Your task to perform on an android device: Empty the shopping cart on target. Add corsair k70 to the cart on target Image 0: 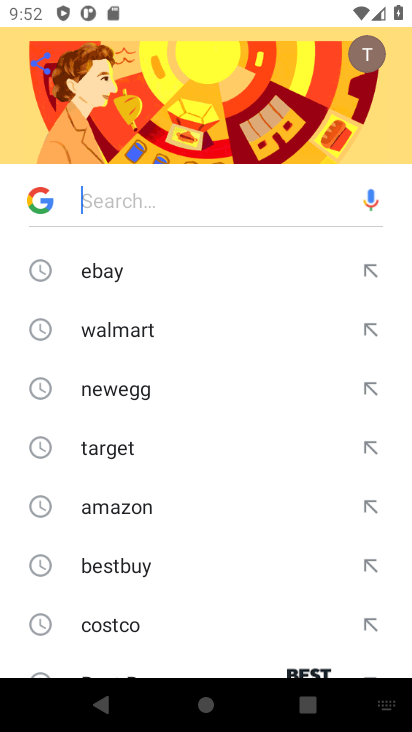
Step 0: type "target.com"
Your task to perform on an android device: Empty the shopping cart on target. Add corsair k70 to the cart on target Image 1: 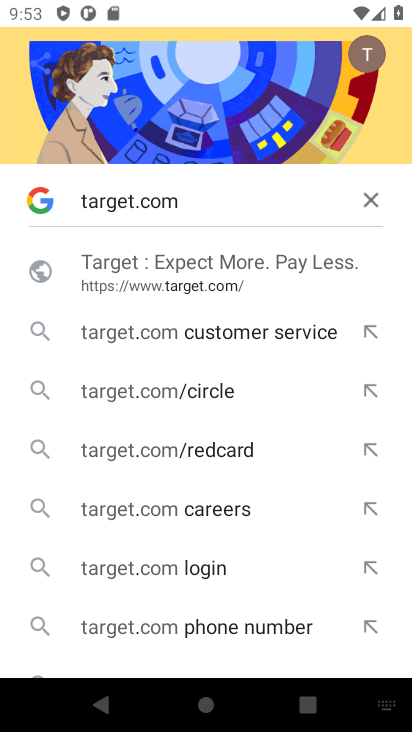
Step 1: click (123, 275)
Your task to perform on an android device: Empty the shopping cart on target. Add corsair k70 to the cart on target Image 2: 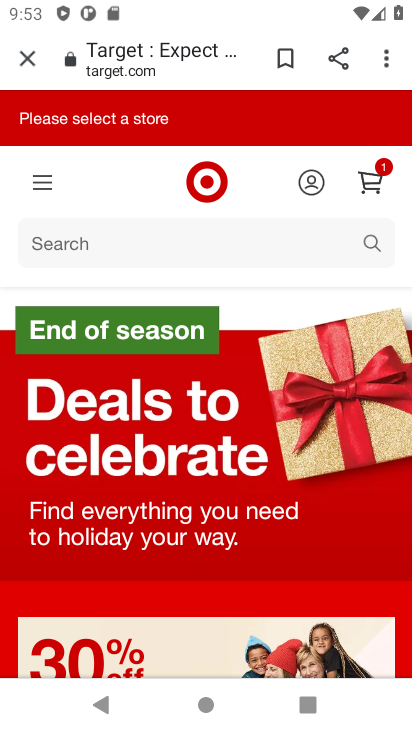
Step 2: click (371, 183)
Your task to perform on an android device: Empty the shopping cart on target. Add corsair k70 to the cart on target Image 3: 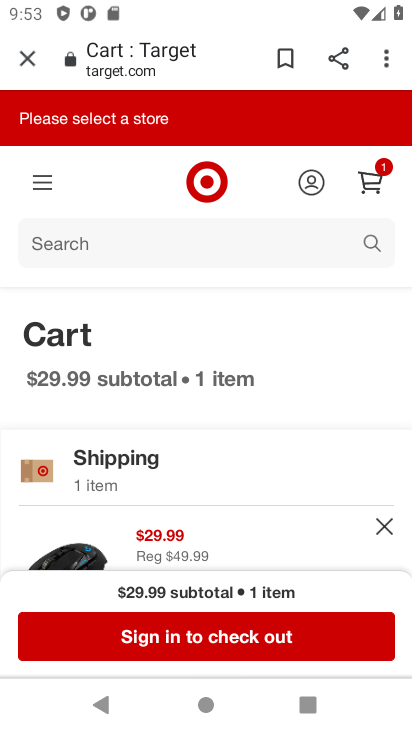
Step 3: click (385, 528)
Your task to perform on an android device: Empty the shopping cart on target. Add corsair k70 to the cart on target Image 4: 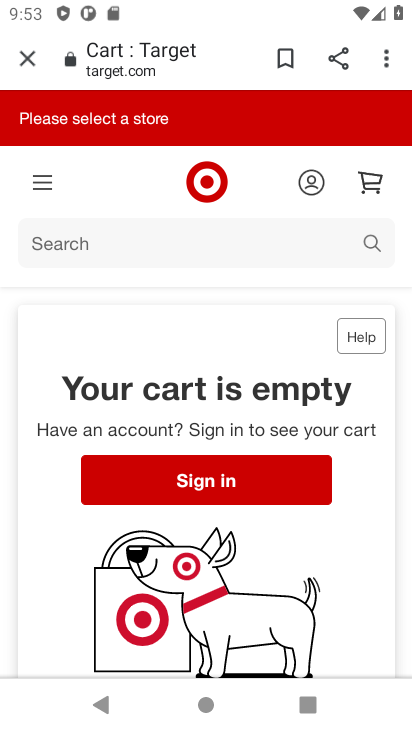
Step 4: click (69, 248)
Your task to perform on an android device: Empty the shopping cart on target. Add corsair k70 to the cart on target Image 5: 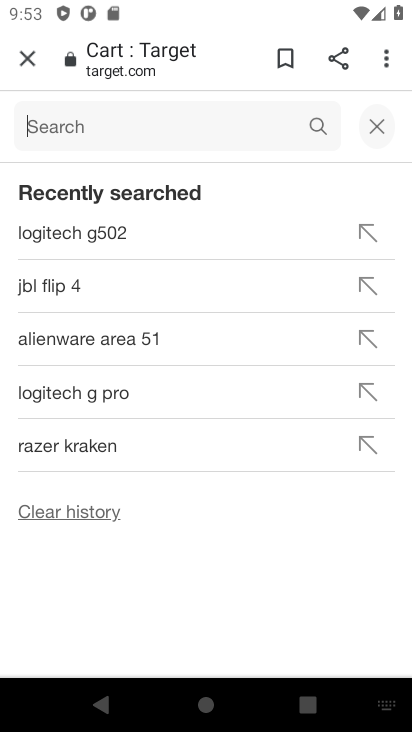
Step 5: type "corsair k70"
Your task to perform on an android device: Empty the shopping cart on target. Add corsair k70 to the cart on target Image 6: 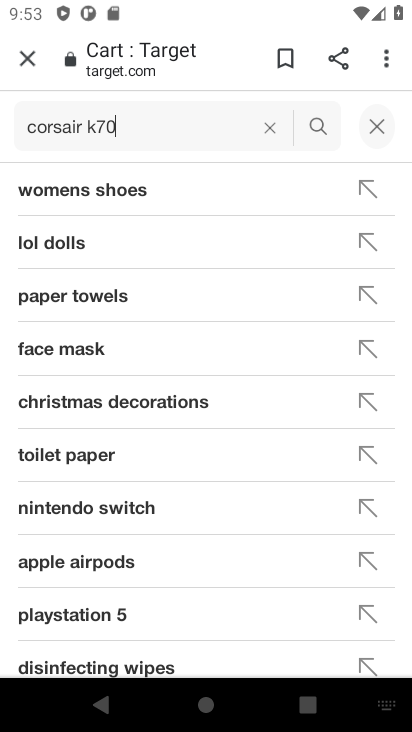
Step 6: click (324, 128)
Your task to perform on an android device: Empty the shopping cart on target. Add corsair k70 to the cart on target Image 7: 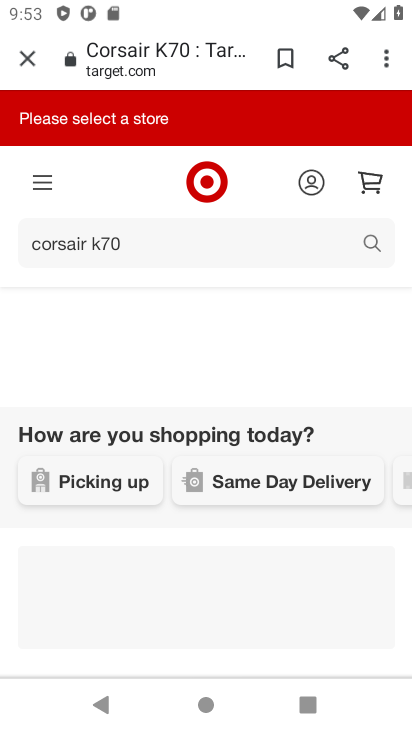
Step 7: task complete